Your task to perform on an android device: open a bookmark in the chrome app Image 0: 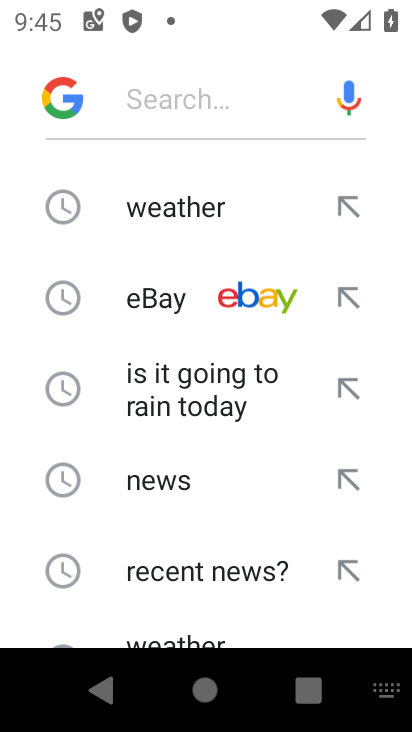
Step 0: press home button
Your task to perform on an android device: open a bookmark in the chrome app Image 1: 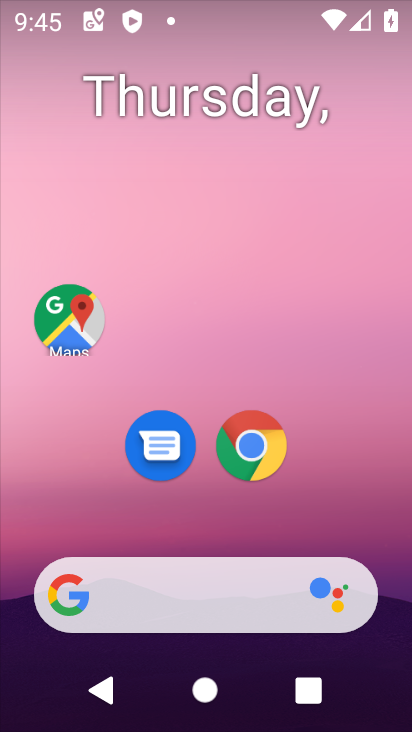
Step 1: click (244, 453)
Your task to perform on an android device: open a bookmark in the chrome app Image 2: 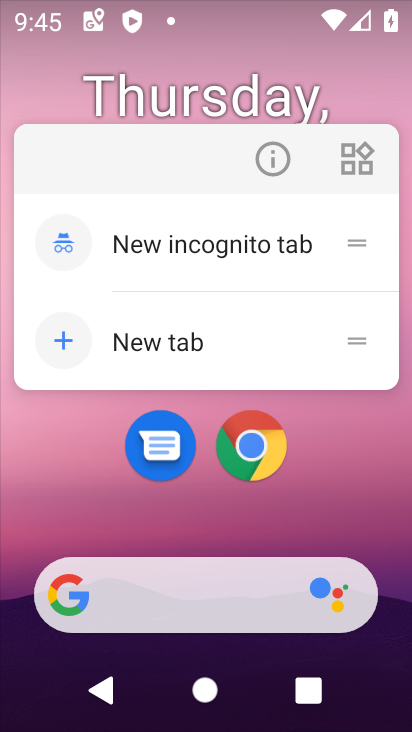
Step 2: click (245, 449)
Your task to perform on an android device: open a bookmark in the chrome app Image 3: 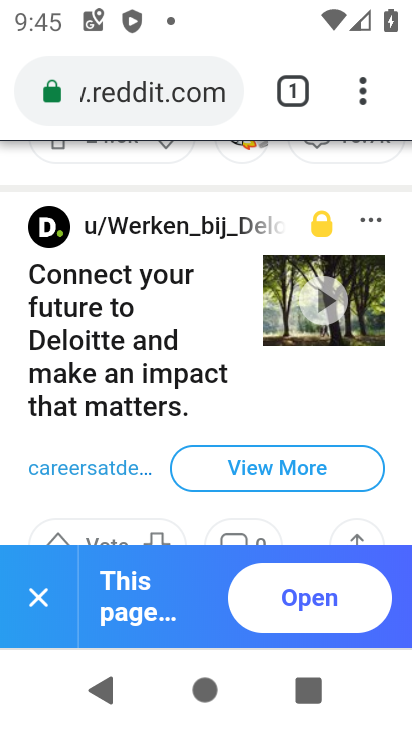
Step 3: click (364, 92)
Your task to perform on an android device: open a bookmark in the chrome app Image 4: 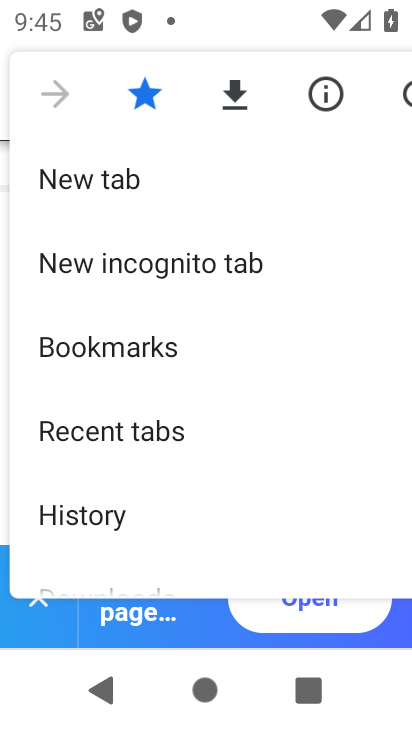
Step 4: click (156, 353)
Your task to perform on an android device: open a bookmark in the chrome app Image 5: 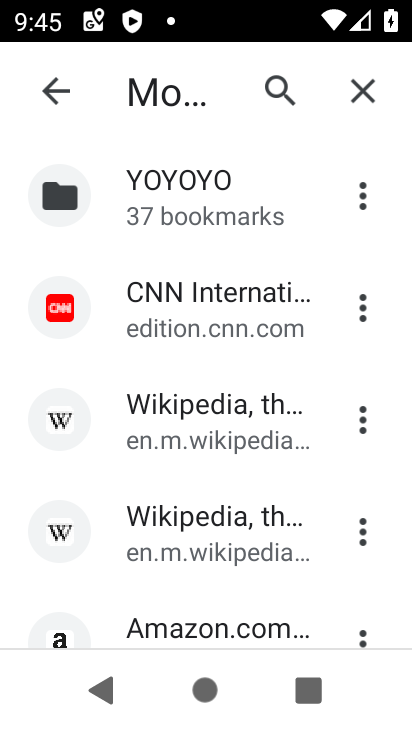
Step 5: task complete